Your task to perform on an android device: Open Google Chrome Image 0: 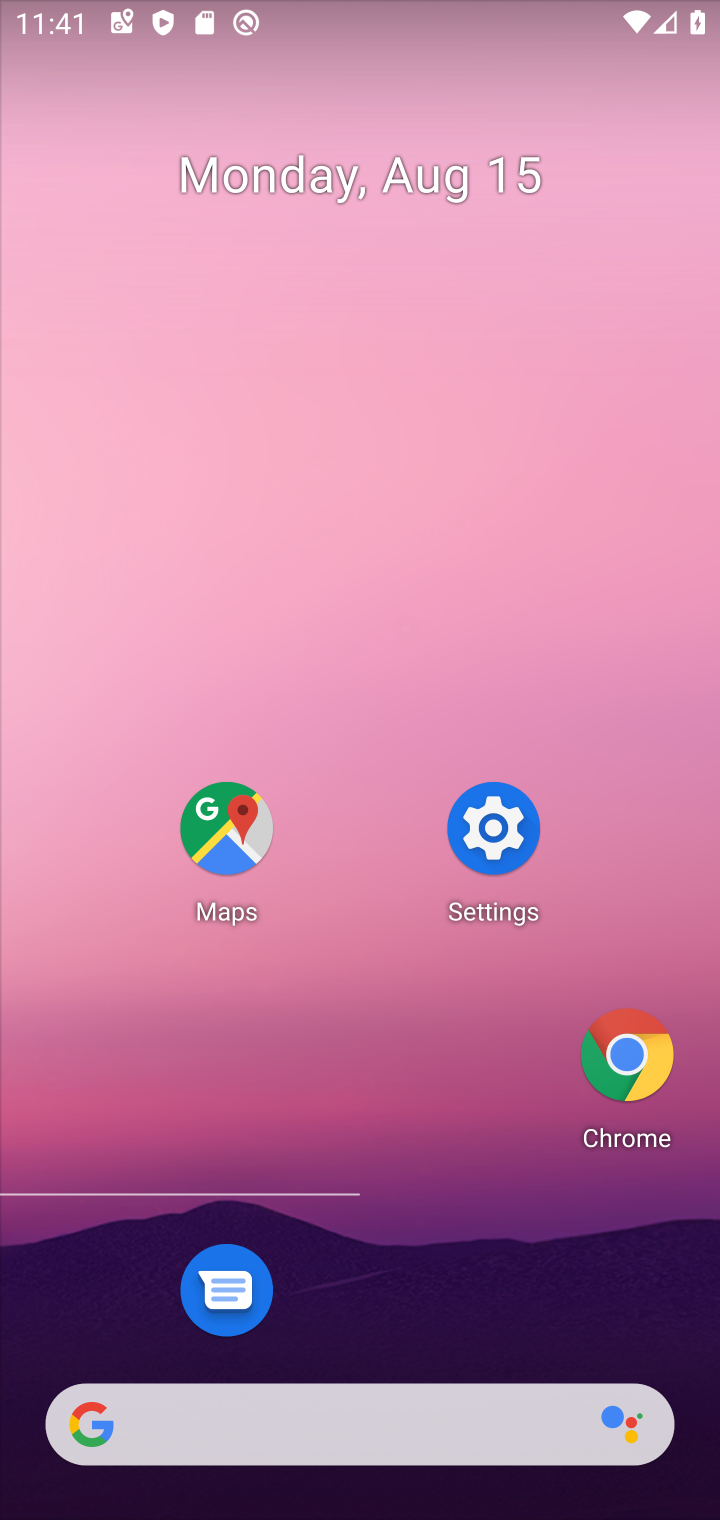
Step 0: drag from (299, 1415) to (503, 335)
Your task to perform on an android device: Open Google Chrome Image 1: 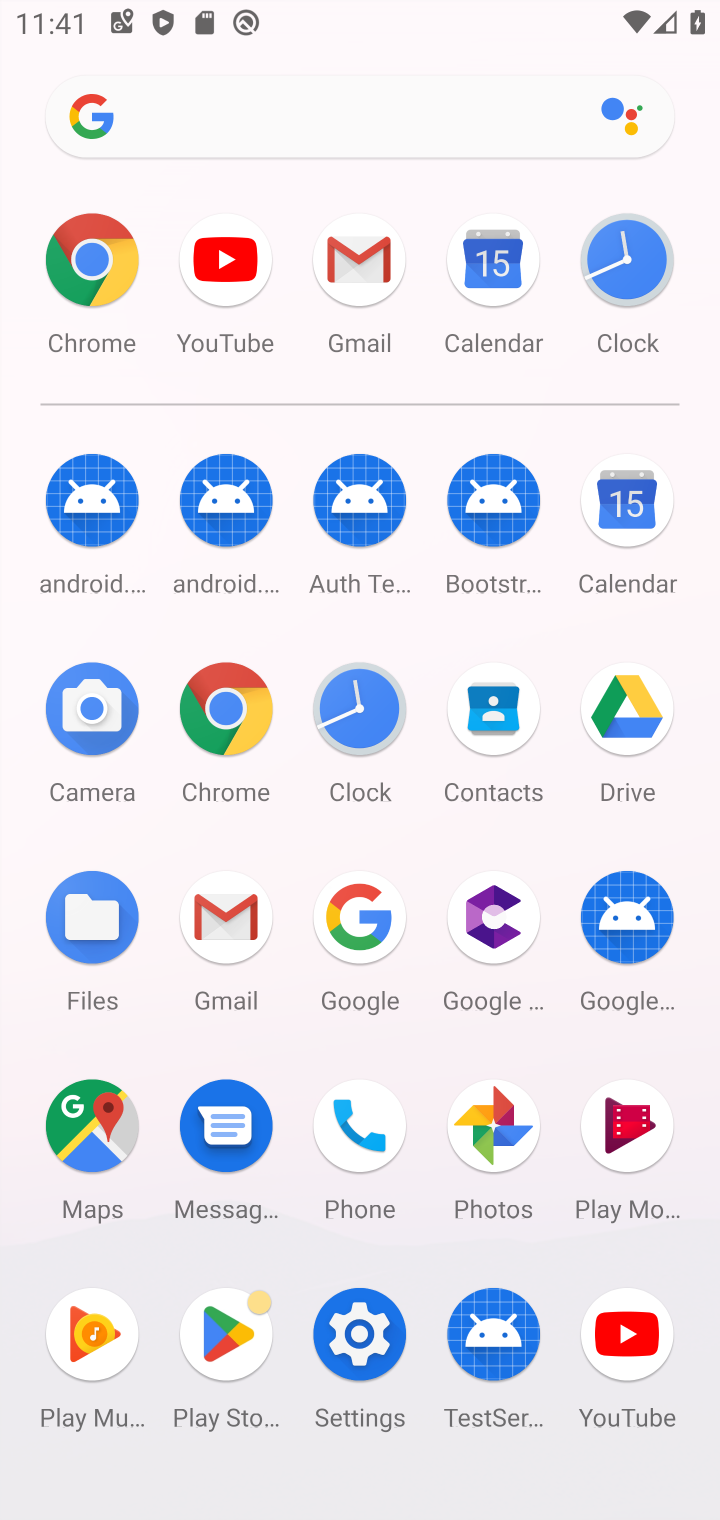
Step 1: click (89, 264)
Your task to perform on an android device: Open Google Chrome Image 2: 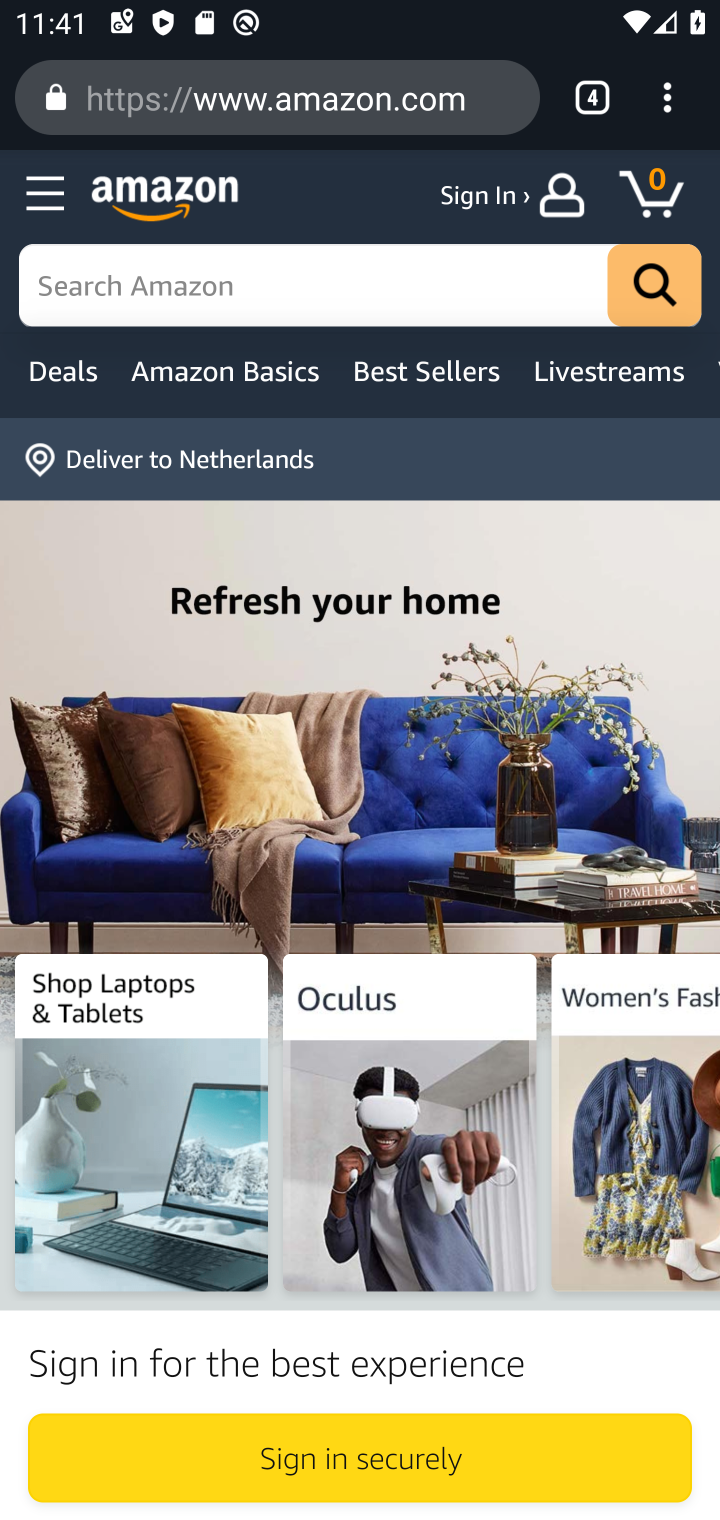
Step 2: task complete